Your task to perform on an android device: show emergency info Image 0: 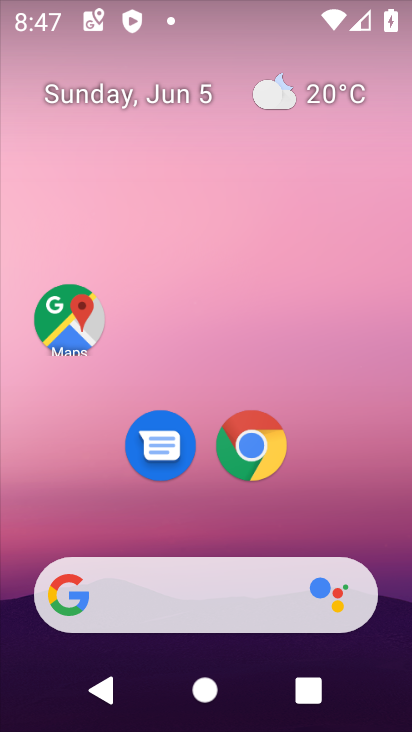
Step 0: drag from (273, 570) to (232, 25)
Your task to perform on an android device: show emergency info Image 1: 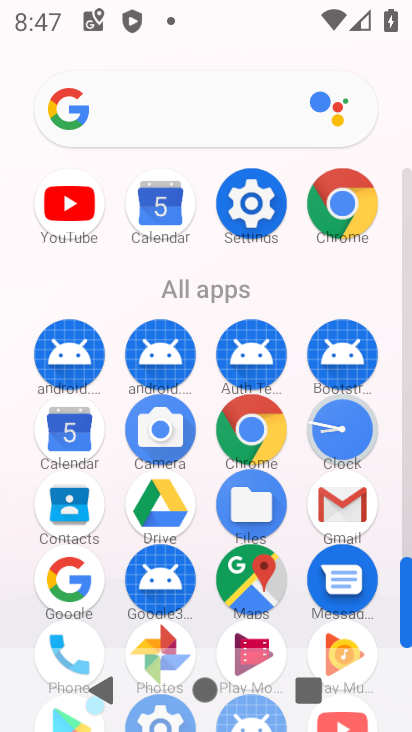
Step 1: click (260, 207)
Your task to perform on an android device: show emergency info Image 2: 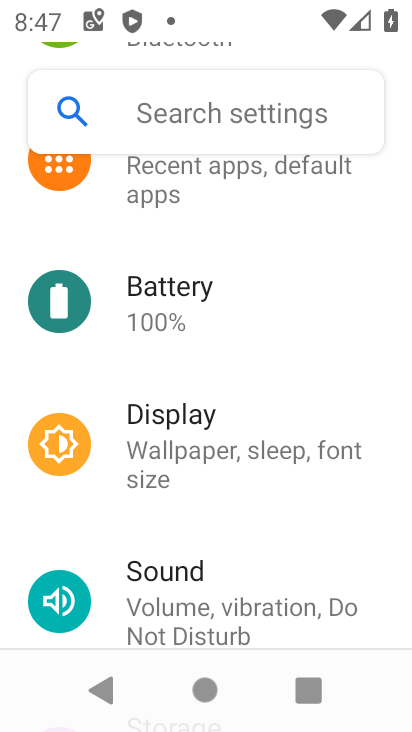
Step 2: drag from (284, 600) to (311, 89)
Your task to perform on an android device: show emergency info Image 3: 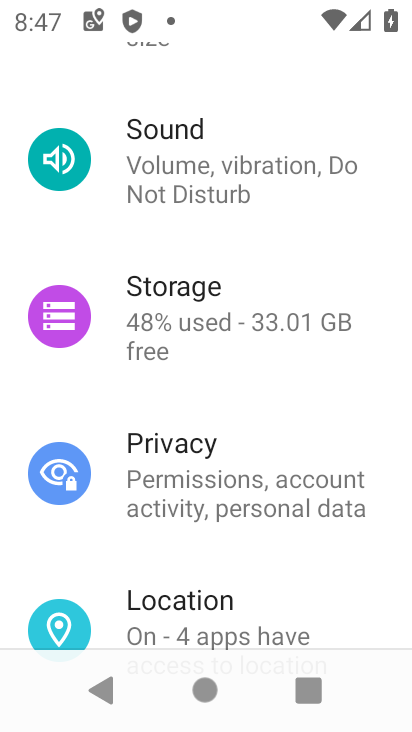
Step 3: drag from (329, 598) to (342, 81)
Your task to perform on an android device: show emergency info Image 4: 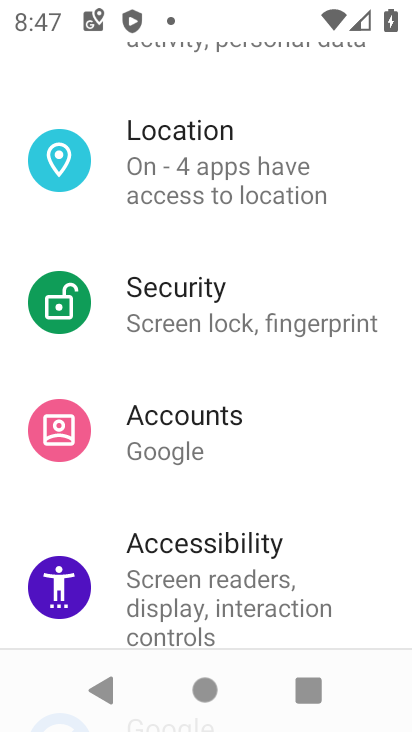
Step 4: drag from (328, 614) to (302, 111)
Your task to perform on an android device: show emergency info Image 5: 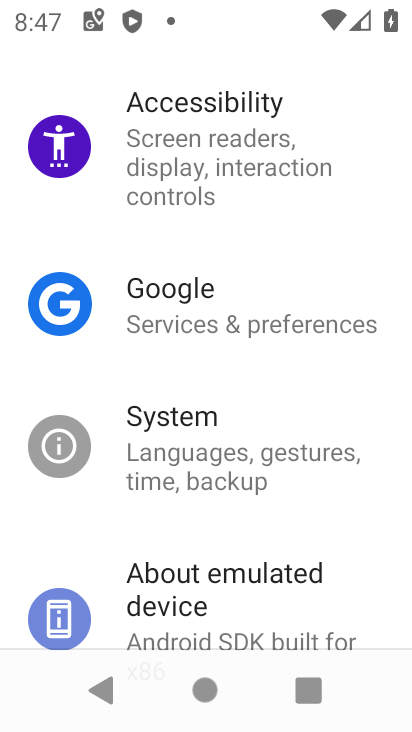
Step 5: drag from (274, 609) to (311, 200)
Your task to perform on an android device: show emergency info Image 6: 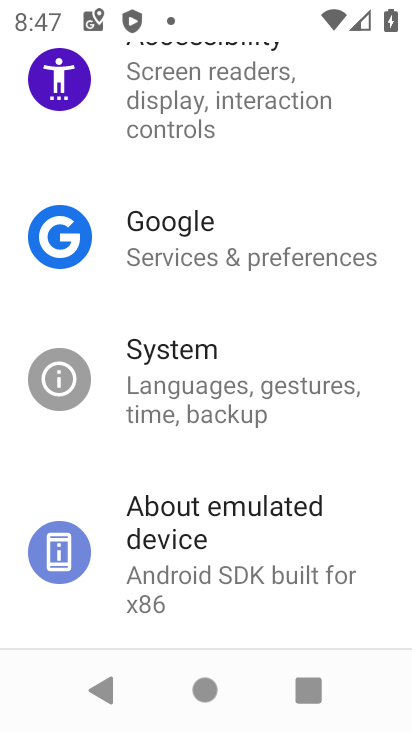
Step 6: click (300, 588)
Your task to perform on an android device: show emergency info Image 7: 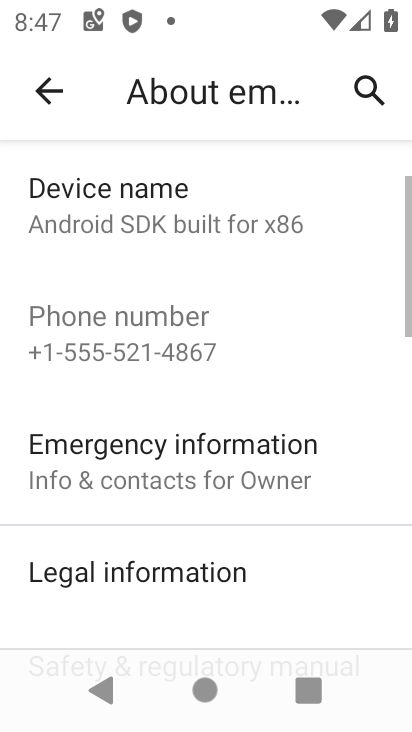
Step 7: click (264, 472)
Your task to perform on an android device: show emergency info Image 8: 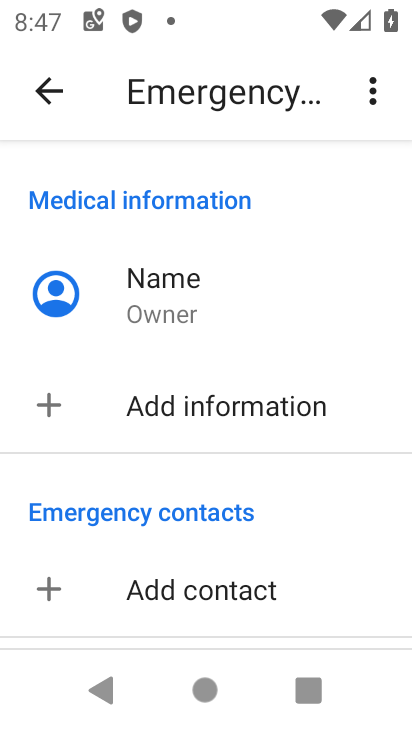
Step 8: task complete